Your task to perform on an android device: toggle javascript in the chrome app Image 0: 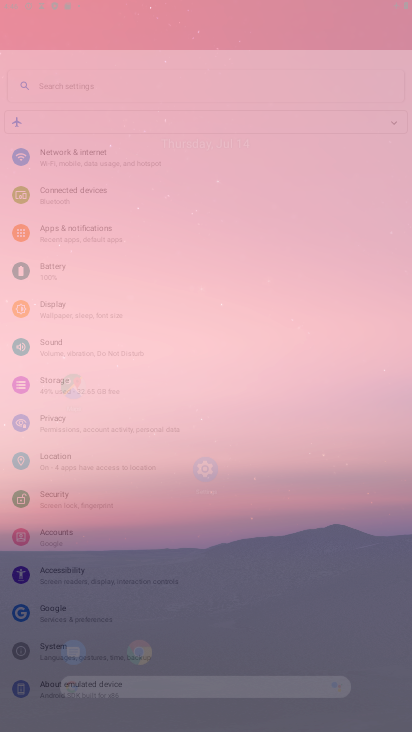
Step 0: press back button
Your task to perform on an android device: toggle javascript in the chrome app Image 1: 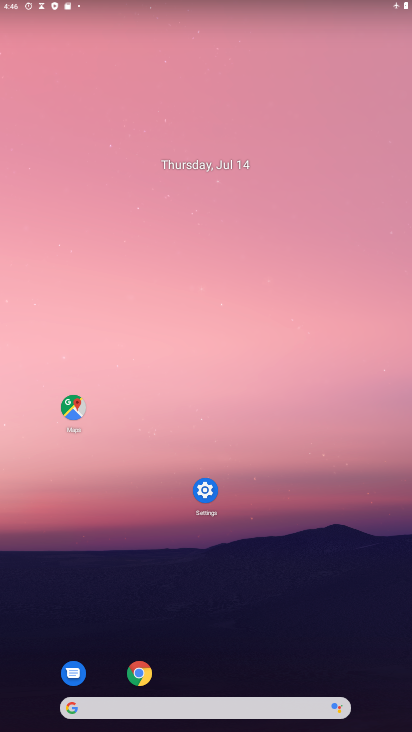
Step 1: drag from (267, 696) to (167, 226)
Your task to perform on an android device: toggle javascript in the chrome app Image 2: 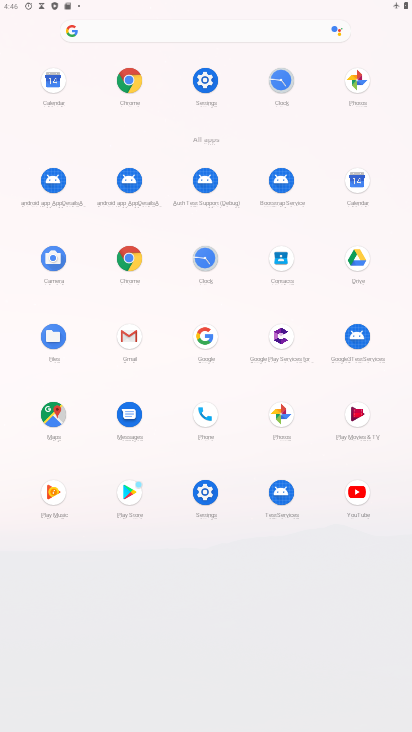
Step 2: click (128, 77)
Your task to perform on an android device: toggle javascript in the chrome app Image 3: 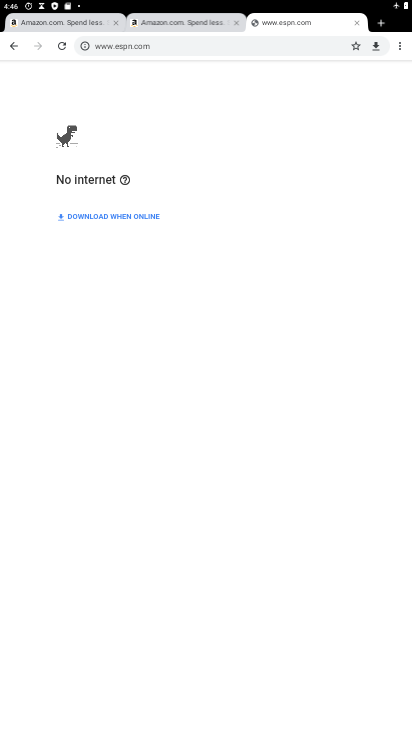
Step 3: drag from (398, 39) to (302, 292)
Your task to perform on an android device: toggle javascript in the chrome app Image 4: 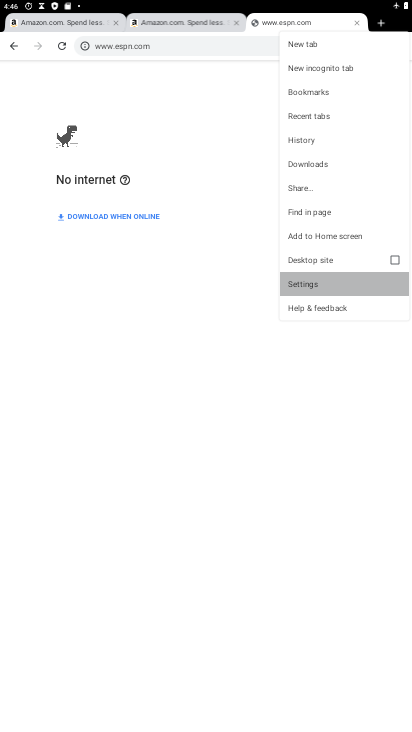
Step 4: click (302, 292)
Your task to perform on an android device: toggle javascript in the chrome app Image 5: 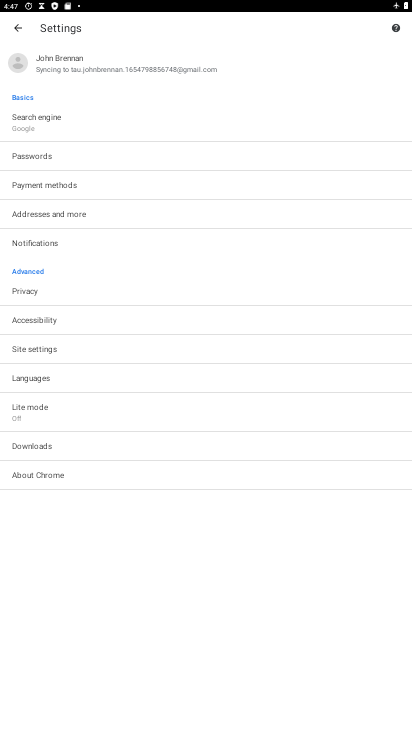
Step 5: click (42, 348)
Your task to perform on an android device: toggle javascript in the chrome app Image 6: 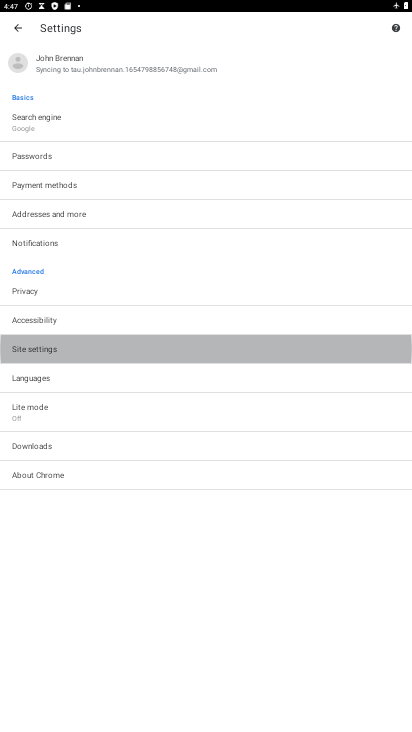
Step 6: click (41, 349)
Your task to perform on an android device: toggle javascript in the chrome app Image 7: 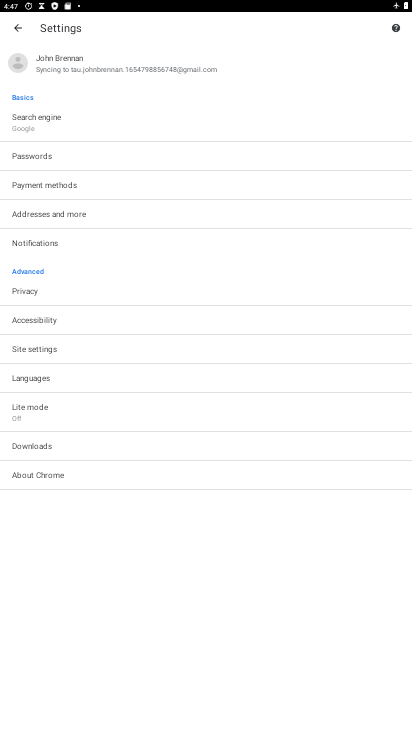
Step 7: click (45, 348)
Your task to perform on an android device: toggle javascript in the chrome app Image 8: 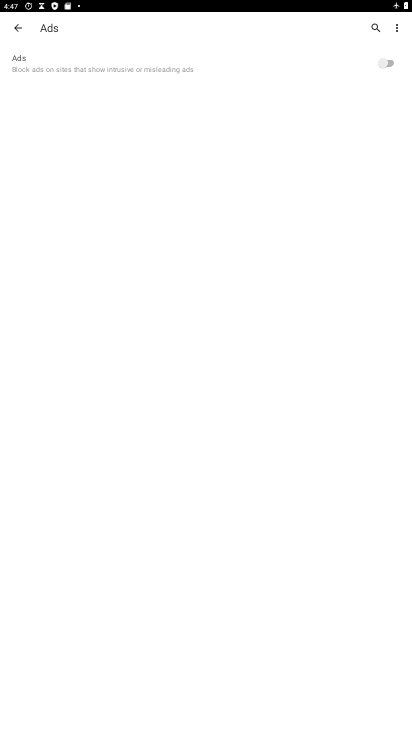
Step 8: click (18, 19)
Your task to perform on an android device: toggle javascript in the chrome app Image 9: 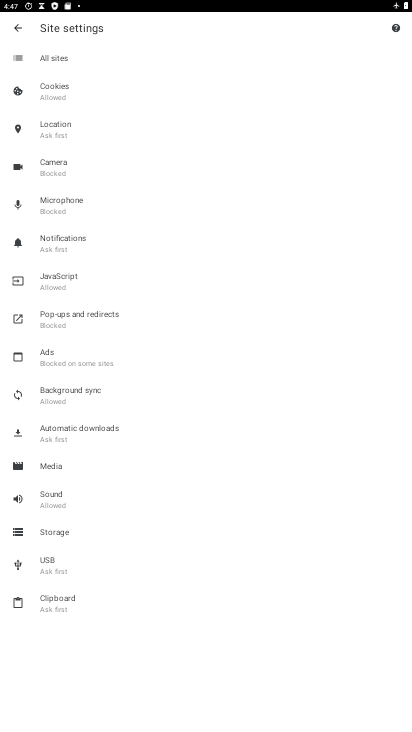
Step 9: click (55, 284)
Your task to perform on an android device: toggle javascript in the chrome app Image 10: 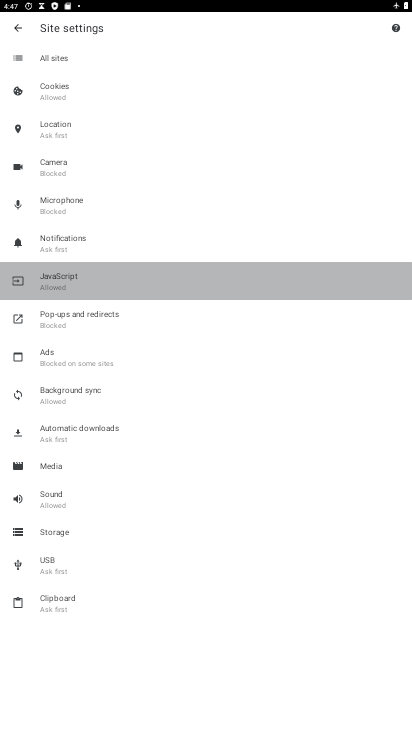
Step 10: click (54, 283)
Your task to perform on an android device: toggle javascript in the chrome app Image 11: 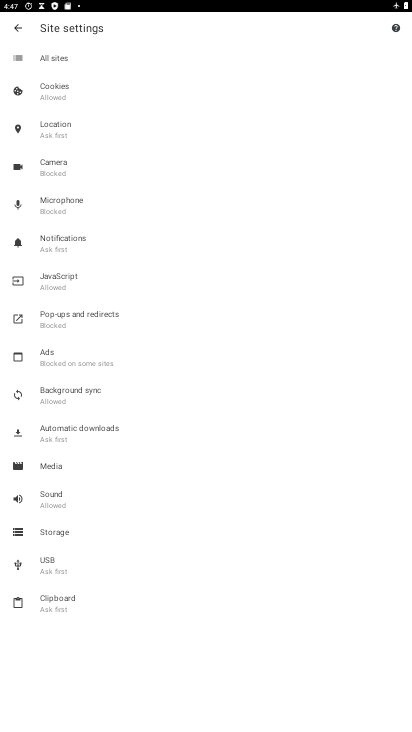
Step 11: click (55, 283)
Your task to perform on an android device: toggle javascript in the chrome app Image 12: 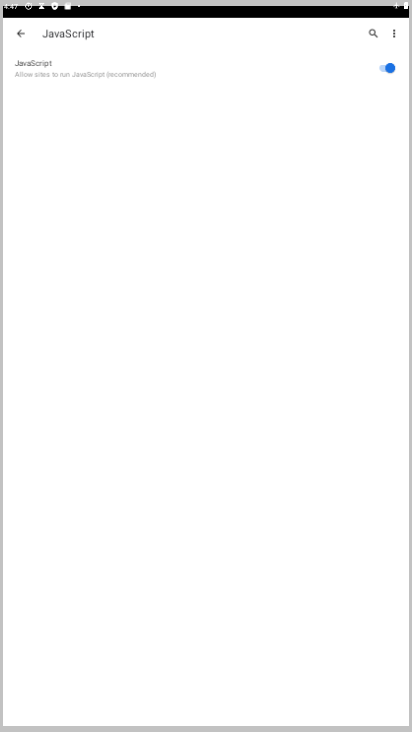
Step 12: click (55, 283)
Your task to perform on an android device: toggle javascript in the chrome app Image 13: 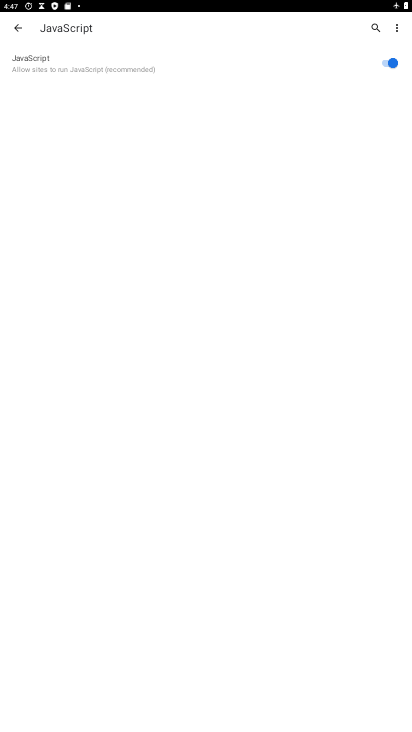
Step 13: click (391, 56)
Your task to perform on an android device: toggle javascript in the chrome app Image 14: 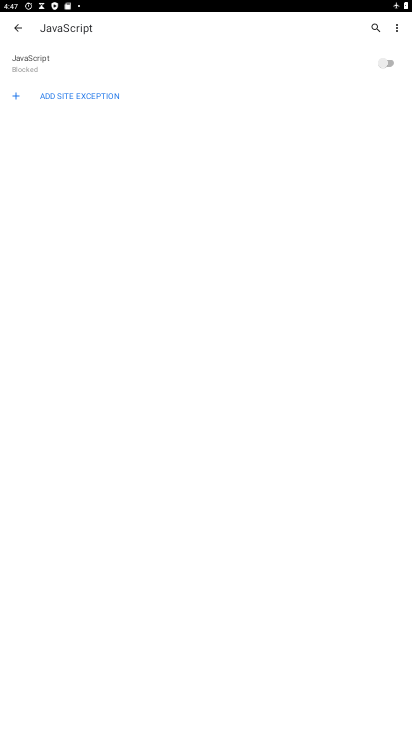
Step 14: task complete